Your task to perform on an android device: delete the emails in spam in the gmail app Image 0: 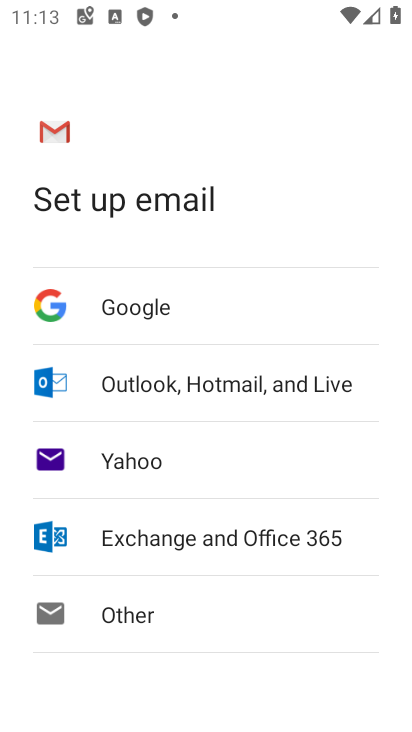
Step 0: press home button
Your task to perform on an android device: delete the emails in spam in the gmail app Image 1: 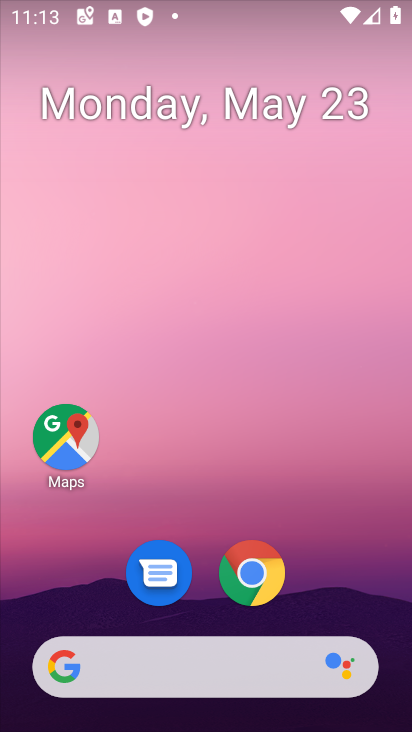
Step 1: drag from (150, 641) to (179, 229)
Your task to perform on an android device: delete the emails in spam in the gmail app Image 2: 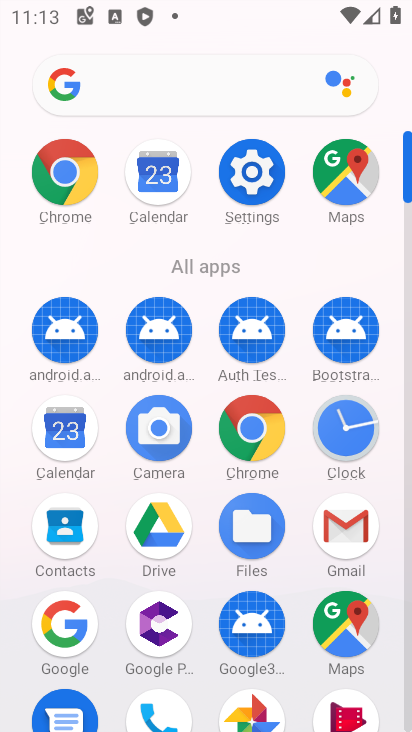
Step 2: click (332, 535)
Your task to perform on an android device: delete the emails in spam in the gmail app Image 3: 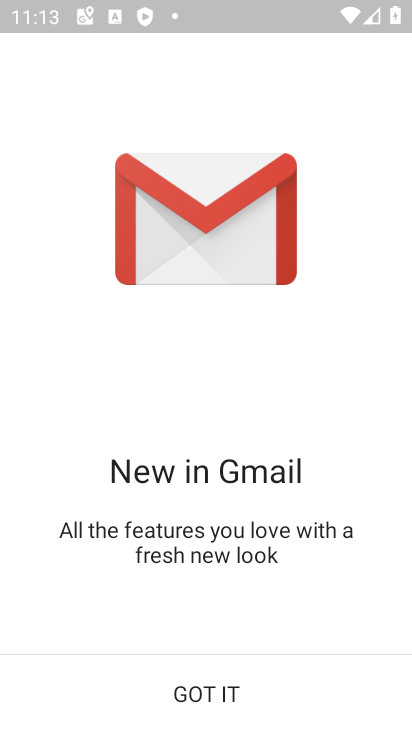
Step 3: click (215, 689)
Your task to perform on an android device: delete the emails in spam in the gmail app Image 4: 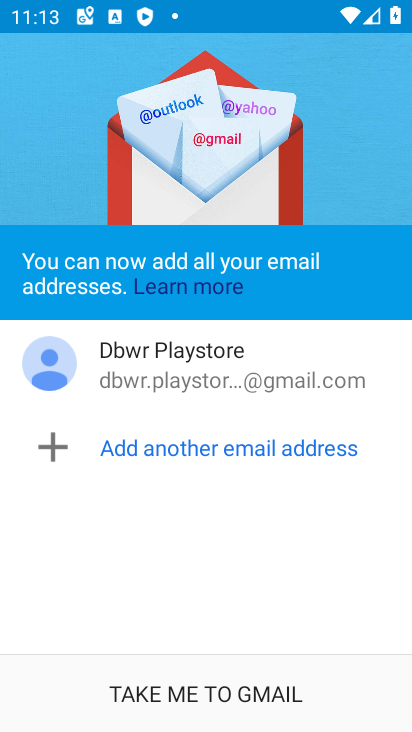
Step 4: click (215, 689)
Your task to perform on an android device: delete the emails in spam in the gmail app Image 5: 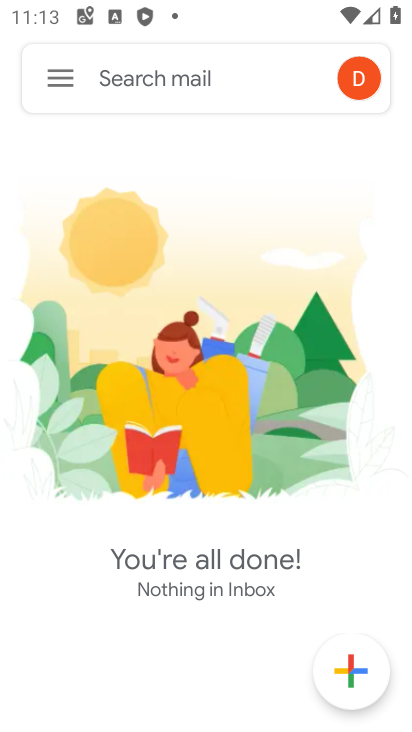
Step 5: click (74, 84)
Your task to perform on an android device: delete the emails in spam in the gmail app Image 6: 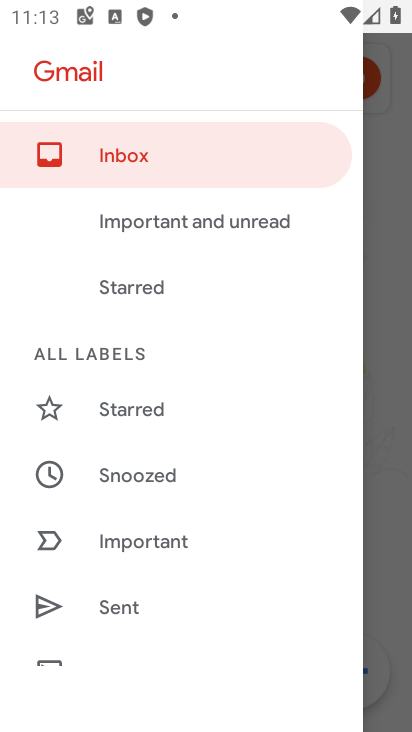
Step 6: drag from (137, 580) to (108, 232)
Your task to perform on an android device: delete the emails in spam in the gmail app Image 7: 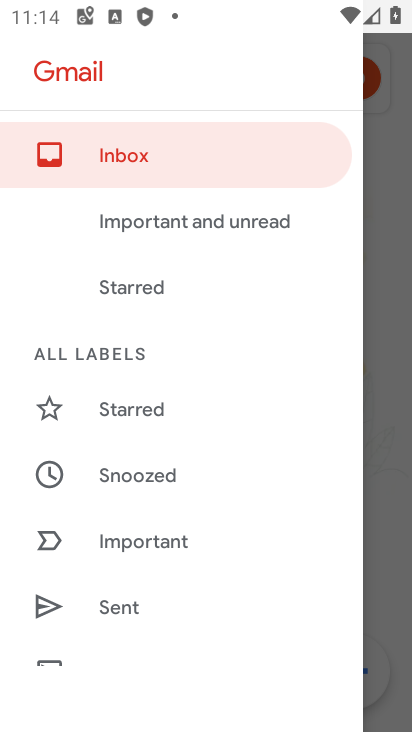
Step 7: drag from (156, 646) to (205, 204)
Your task to perform on an android device: delete the emails in spam in the gmail app Image 8: 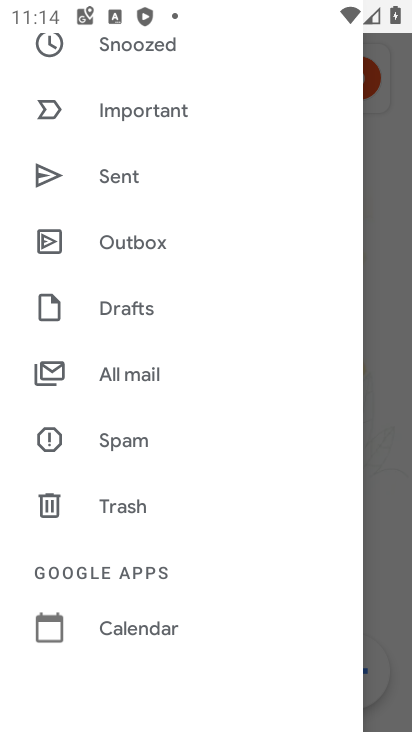
Step 8: click (129, 446)
Your task to perform on an android device: delete the emails in spam in the gmail app Image 9: 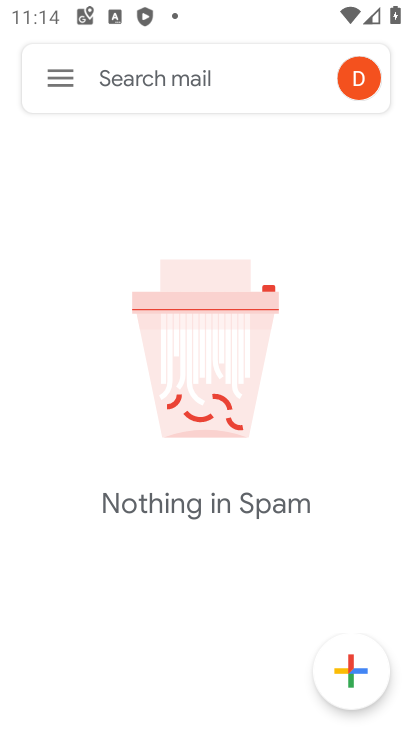
Step 9: task complete